Your task to perform on an android device: Go to Wikipedia Image 0: 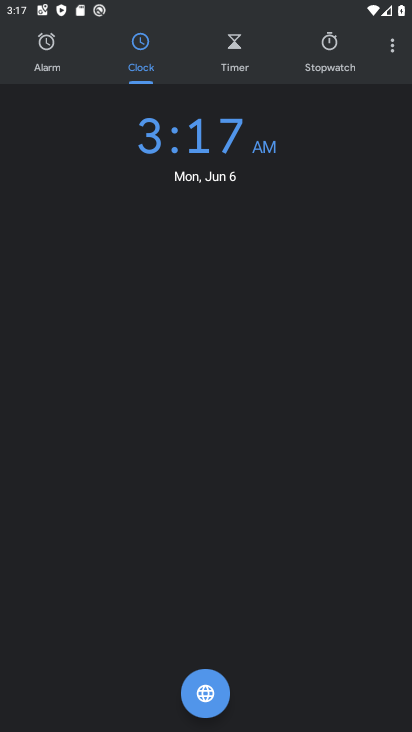
Step 0: press back button
Your task to perform on an android device: Go to Wikipedia Image 1: 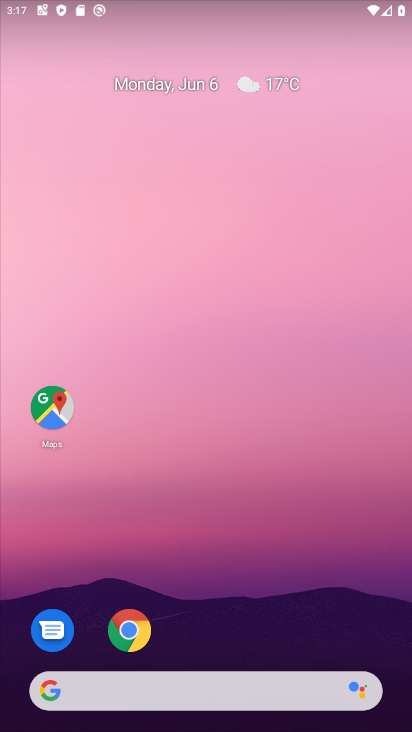
Step 1: click (136, 622)
Your task to perform on an android device: Go to Wikipedia Image 2: 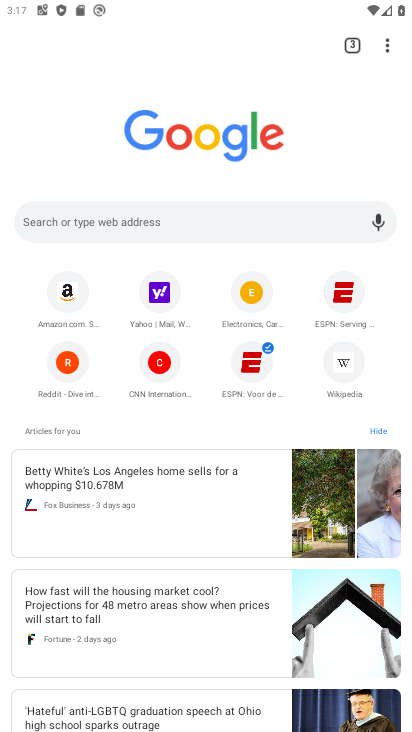
Step 2: click (325, 380)
Your task to perform on an android device: Go to Wikipedia Image 3: 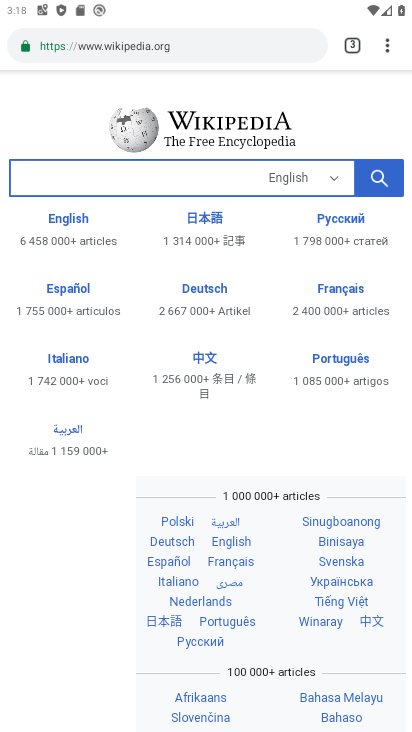
Step 3: task complete